Your task to perform on an android device: add a contact in the contacts app Image 0: 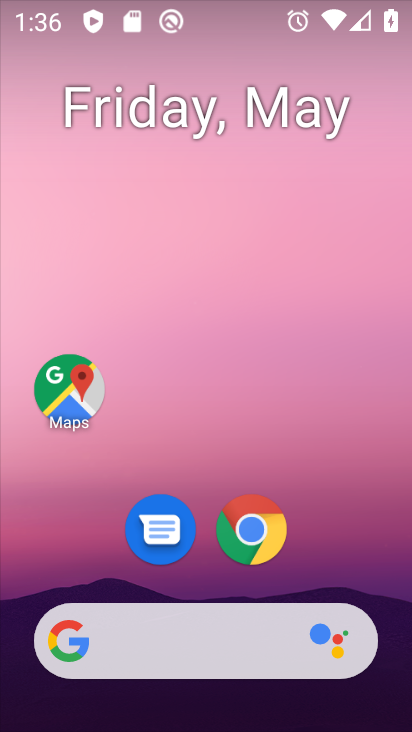
Step 0: drag from (400, 639) to (399, 322)
Your task to perform on an android device: add a contact in the contacts app Image 1: 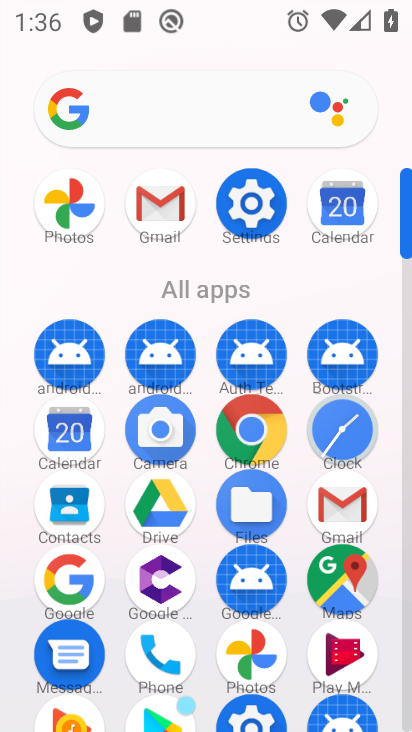
Step 1: click (68, 505)
Your task to perform on an android device: add a contact in the contacts app Image 2: 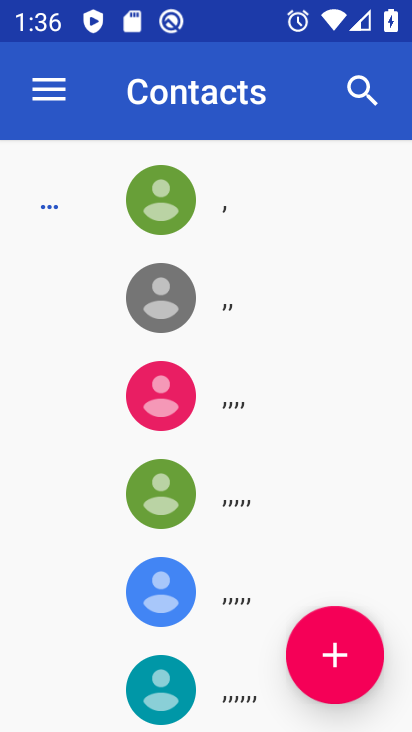
Step 2: click (367, 653)
Your task to perform on an android device: add a contact in the contacts app Image 3: 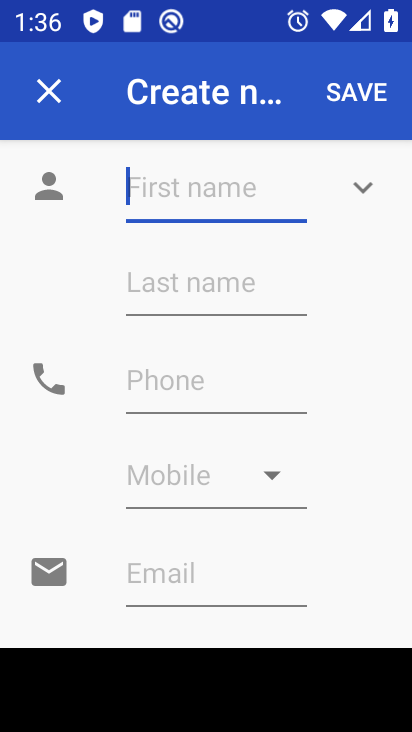
Step 3: type "sgrhth"
Your task to perform on an android device: add a contact in the contacts app Image 4: 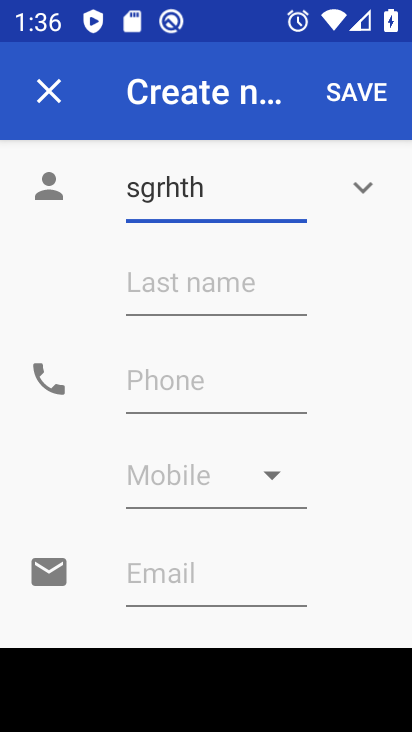
Step 4: click (206, 282)
Your task to perform on an android device: add a contact in the contacts app Image 5: 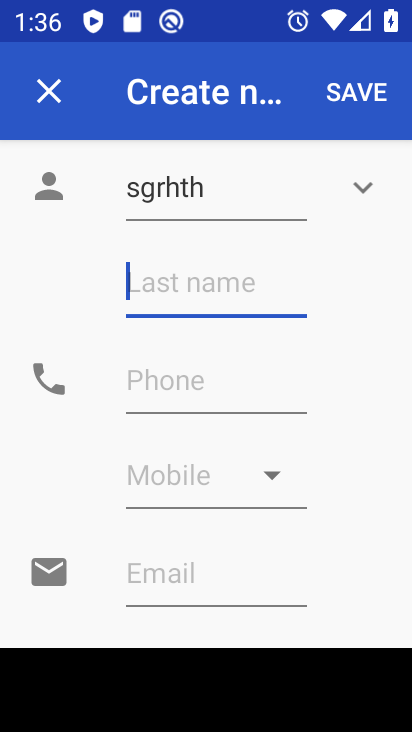
Step 5: type "trshfjrdj"
Your task to perform on an android device: add a contact in the contacts app Image 6: 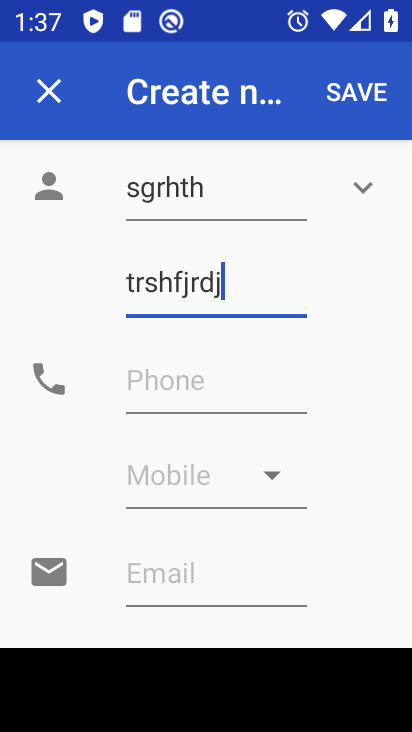
Step 6: click (118, 383)
Your task to perform on an android device: add a contact in the contacts app Image 7: 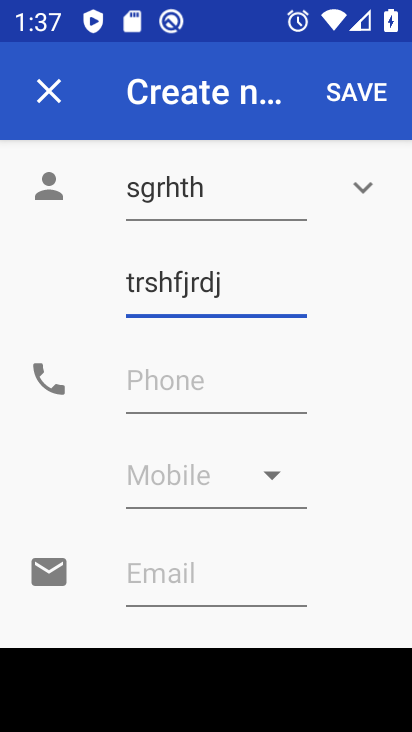
Step 7: type "3477457444444"
Your task to perform on an android device: add a contact in the contacts app Image 8: 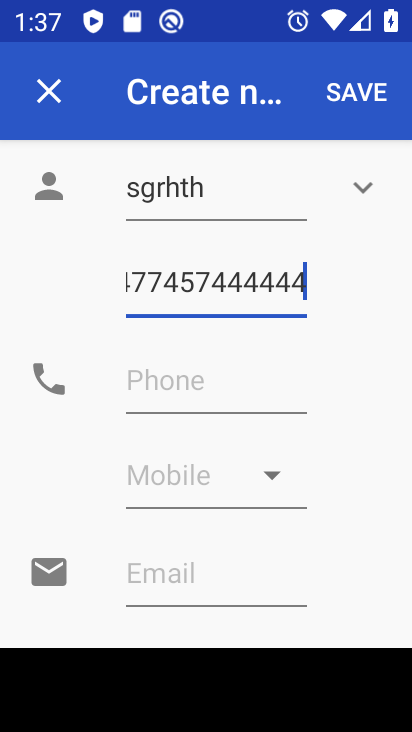
Step 8: click (209, 387)
Your task to perform on an android device: add a contact in the contacts app Image 9: 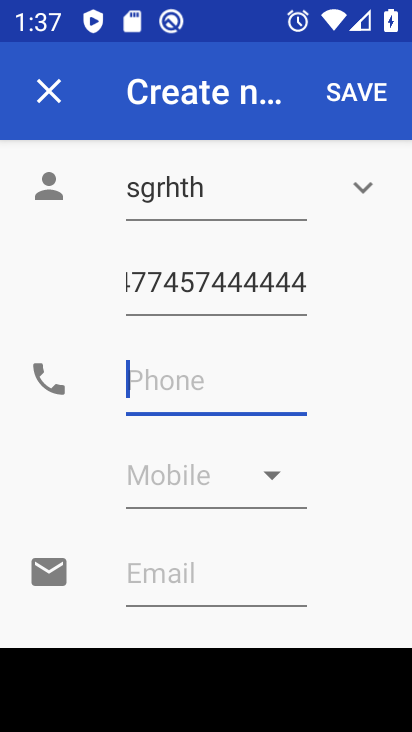
Step 9: click (312, 278)
Your task to perform on an android device: add a contact in the contacts app Image 10: 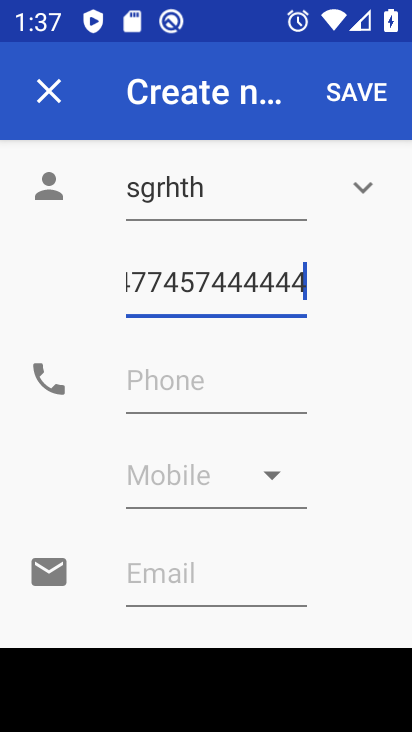
Step 10: click (157, 403)
Your task to perform on an android device: add a contact in the contacts app Image 11: 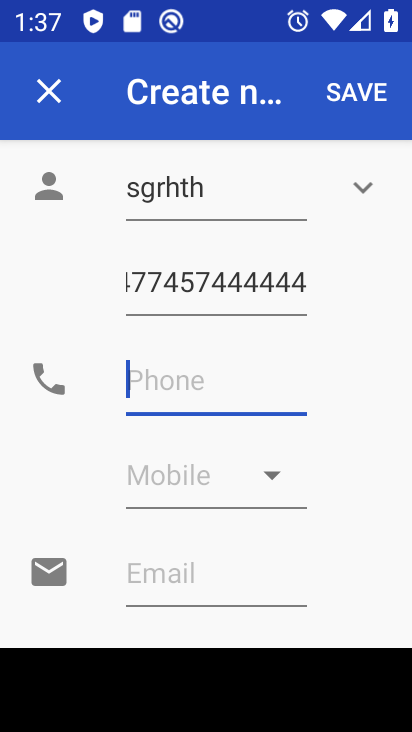
Step 11: type "3755537476767"
Your task to perform on an android device: add a contact in the contacts app Image 12: 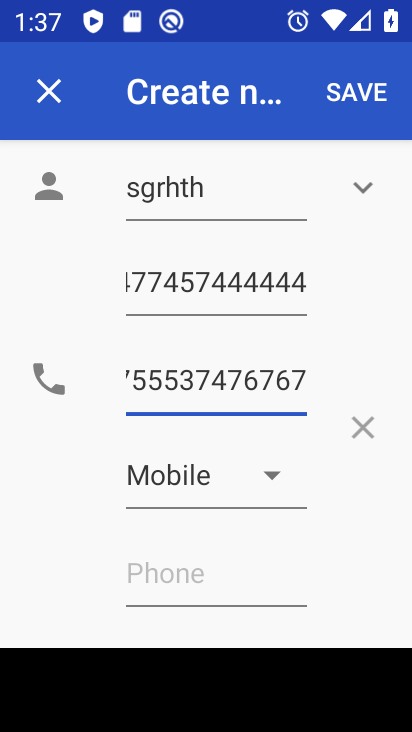
Step 12: click (367, 97)
Your task to perform on an android device: add a contact in the contacts app Image 13: 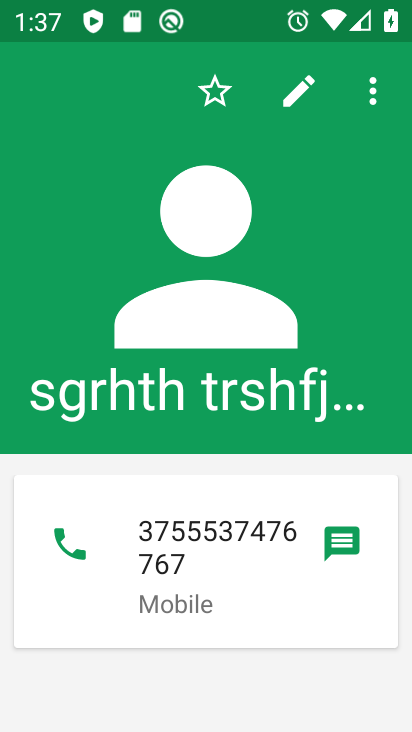
Step 13: task complete